Your task to perform on an android device: What is the capital of Norway? Image 0: 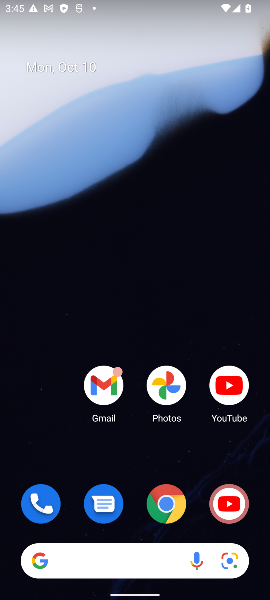
Step 0: drag from (210, 489) to (268, 62)
Your task to perform on an android device: What is the capital of Norway? Image 1: 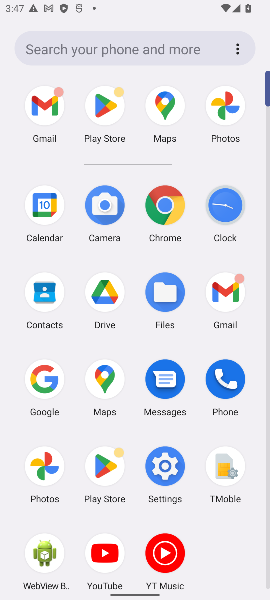
Step 1: click (168, 216)
Your task to perform on an android device: What is the capital of Norway? Image 2: 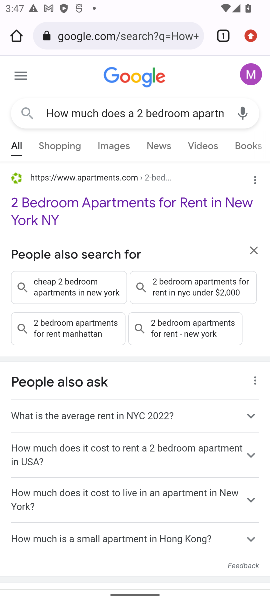
Step 2: click (204, 123)
Your task to perform on an android device: What is the capital of Norway? Image 3: 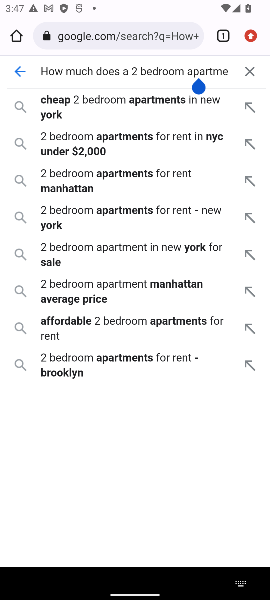
Step 3: click (185, 38)
Your task to perform on an android device: What is the capital of Norway? Image 4: 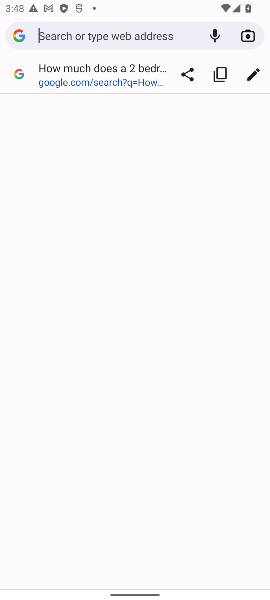
Step 4: type " capital of Norway?"
Your task to perform on an android device: What is the capital of Norway? Image 5: 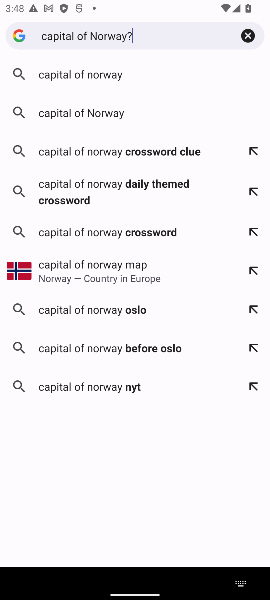
Step 5: press enter
Your task to perform on an android device: What is the capital of Norway? Image 6: 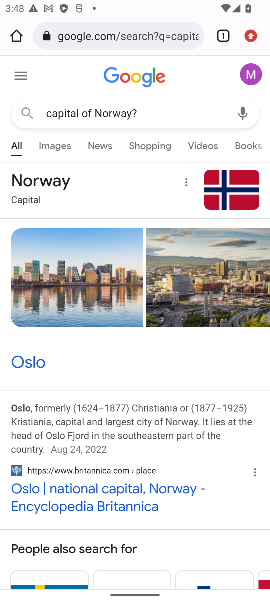
Step 6: task complete